Your task to perform on an android device: turn pop-ups on in chrome Image 0: 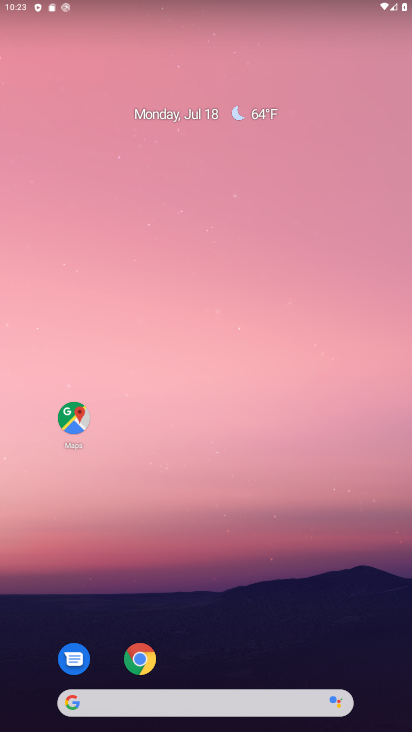
Step 0: drag from (199, 667) to (248, 65)
Your task to perform on an android device: turn pop-ups on in chrome Image 1: 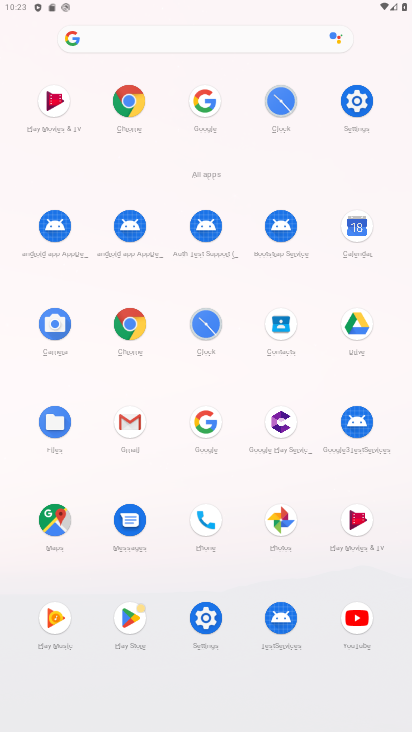
Step 1: click (133, 323)
Your task to perform on an android device: turn pop-ups on in chrome Image 2: 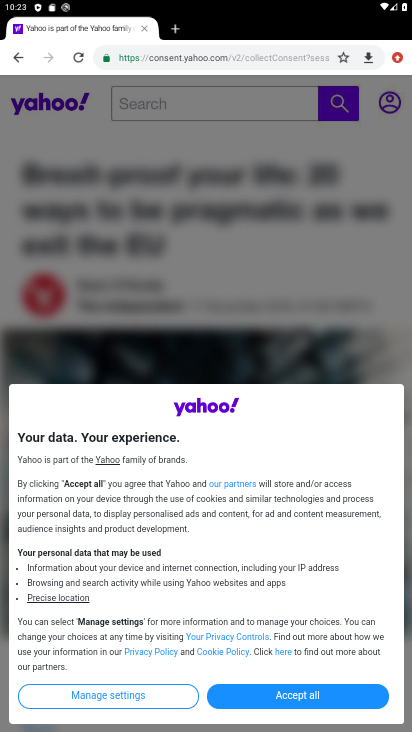
Step 2: click (394, 59)
Your task to perform on an android device: turn pop-ups on in chrome Image 3: 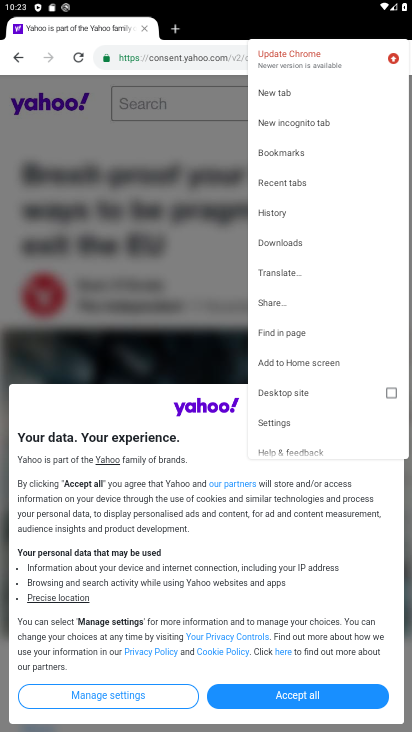
Step 3: click (263, 423)
Your task to perform on an android device: turn pop-ups on in chrome Image 4: 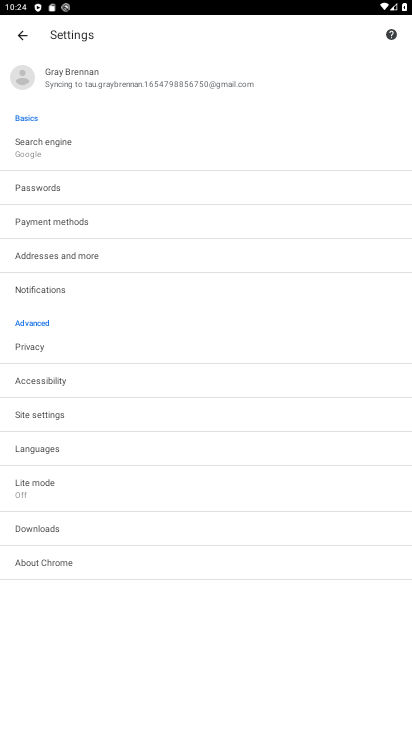
Step 4: click (41, 418)
Your task to perform on an android device: turn pop-ups on in chrome Image 5: 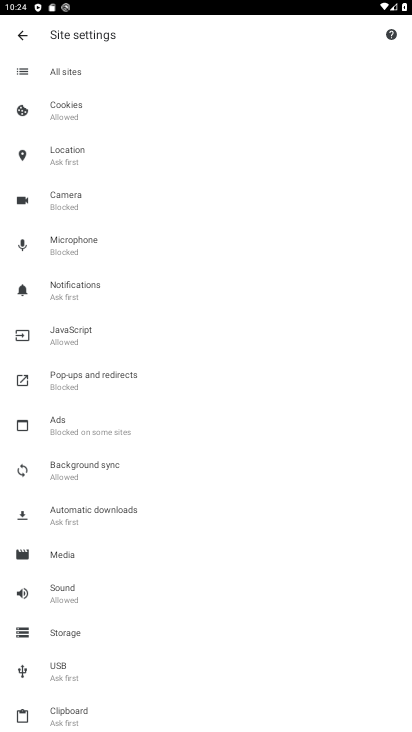
Step 5: click (83, 385)
Your task to perform on an android device: turn pop-ups on in chrome Image 6: 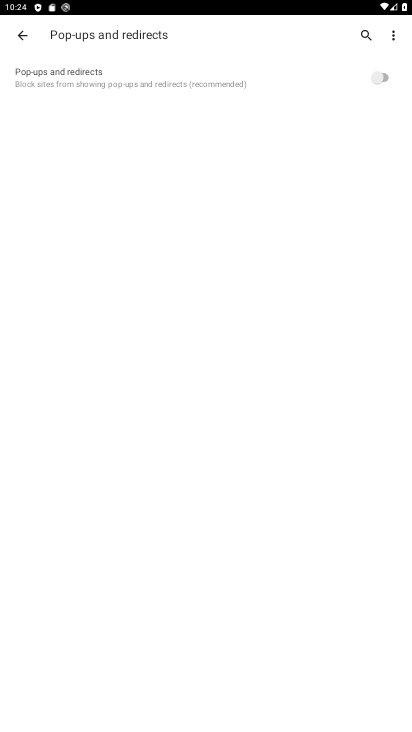
Step 6: click (383, 75)
Your task to perform on an android device: turn pop-ups on in chrome Image 7: 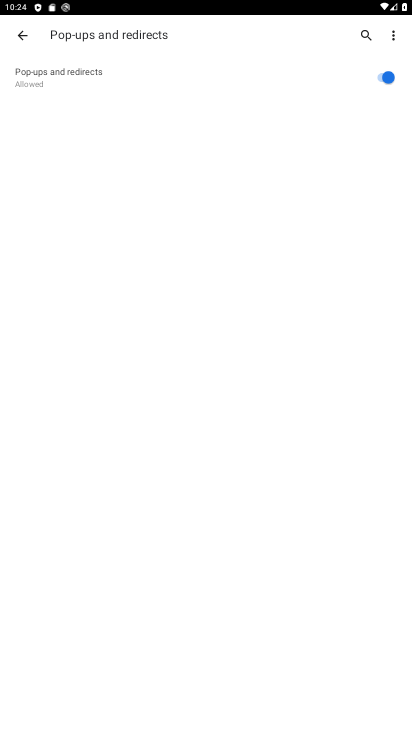
Step 7: task complete